Your task to perform on an android device: Go to Maps Image 0: 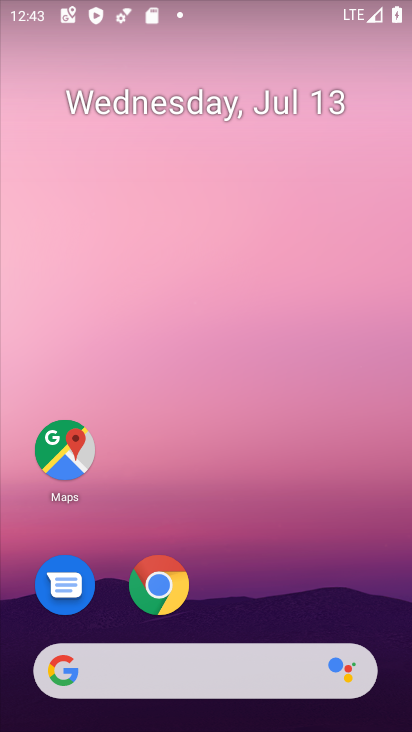
Step 0: click (58, 451)
Your task to perform on an android device: Go to Maps Image 1: 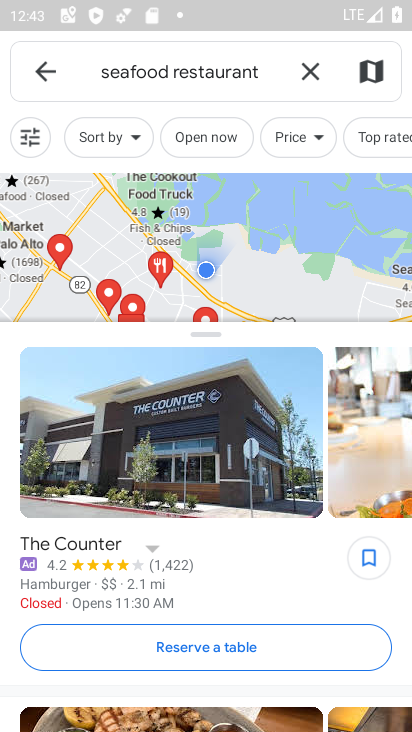
Step 1: task complete